Your task to perform on an android device: Search for Mexican restaurants on Maps Image 0: 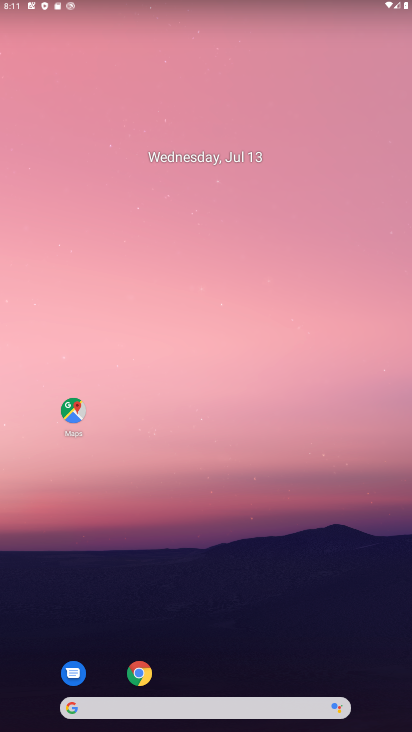
Step 0: click (79, 404)
Your task to perform on an android device: Search for Mexican restaurants on Maps Image 1: 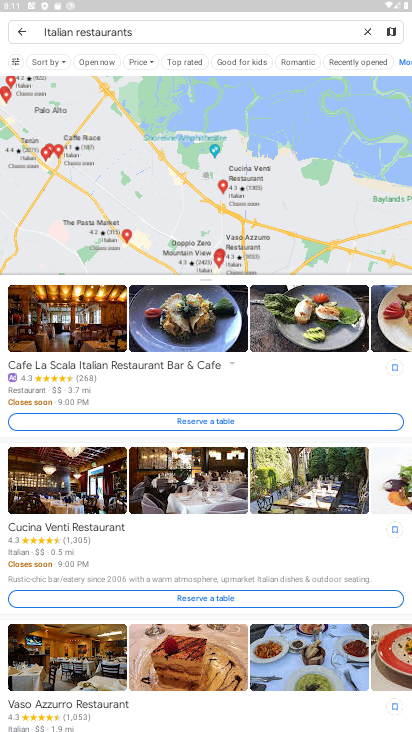
Step 1: click (188, 25)
Your task to perform on an android device: Search for Mexican restaurants on Maps Image 2: 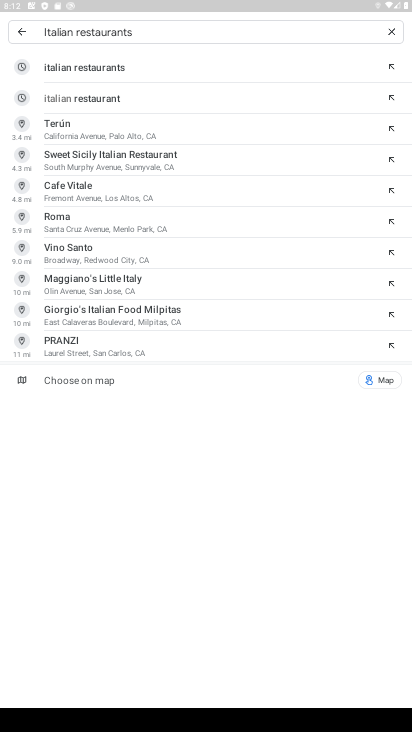
Step 2: click (399, 28)
Your task to perform on an android device: Search for Mexican restaurants on Maps Image 3: 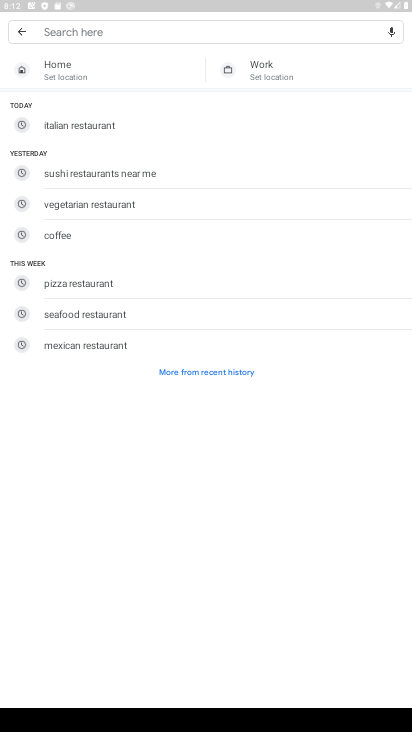
Step 3: type "Mexican restaurants"
Your task to perform on an android device: Search for Mexican restaurants on Maps Image 4: 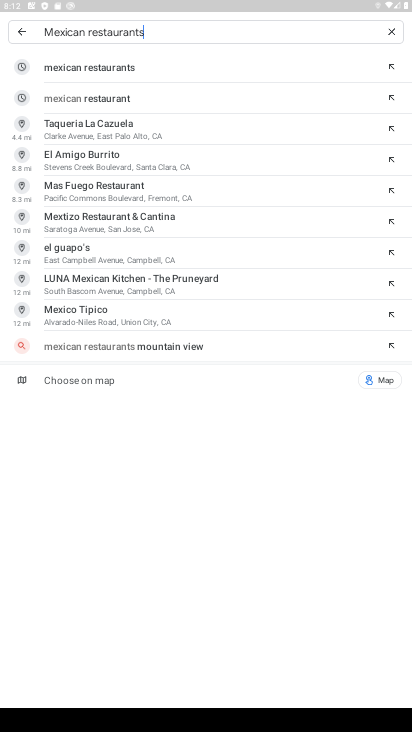
Step 4: click (132, 67)
Your task to perform on an android device: Search for Mexican restaurants on Maps Image 5: 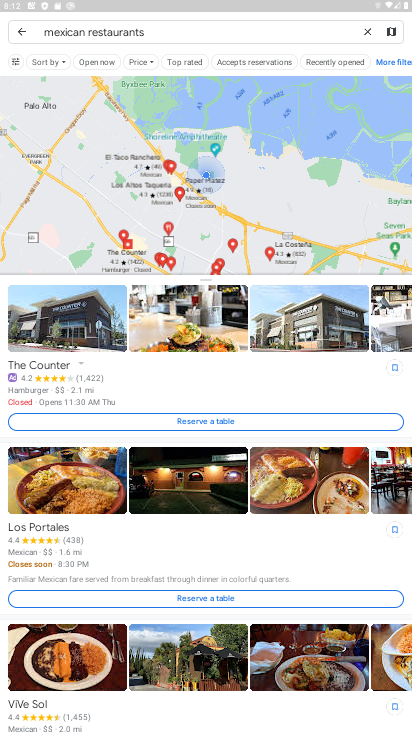
Step 5: task complete